Your task to perform on an android device: Open internet settings Image 0: 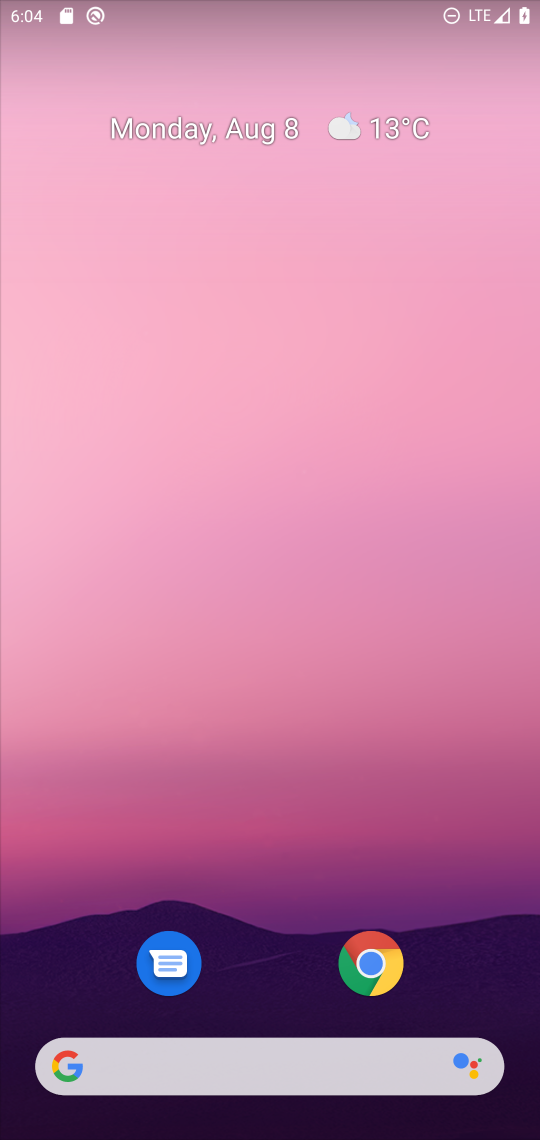
Step 0: press home button
Your task to perform on an android device: Open internet settings Image 1: 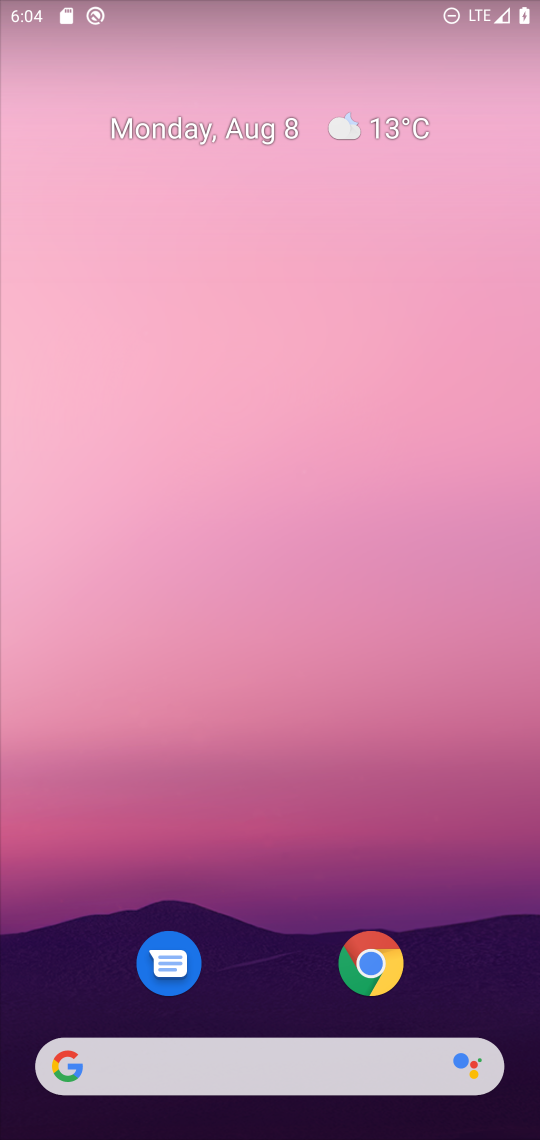
Step 1: drag from (323, 847) to (374, 257)
Your task to perform on an android device: Open internet settings Image 2: 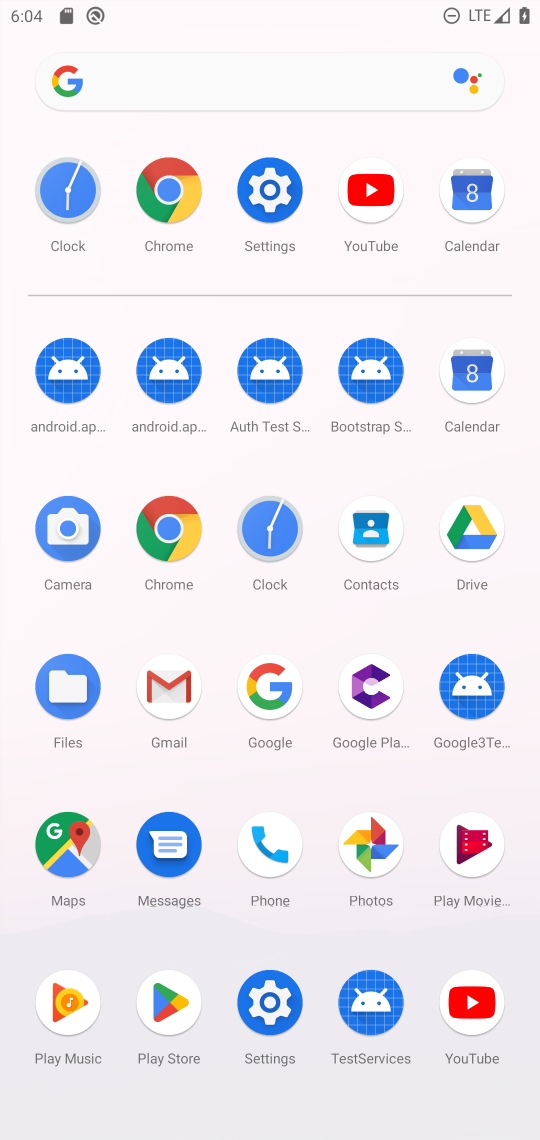
Step 2: click (274, 211)
Your task to perform on an android device: Open internet settings Image 3: 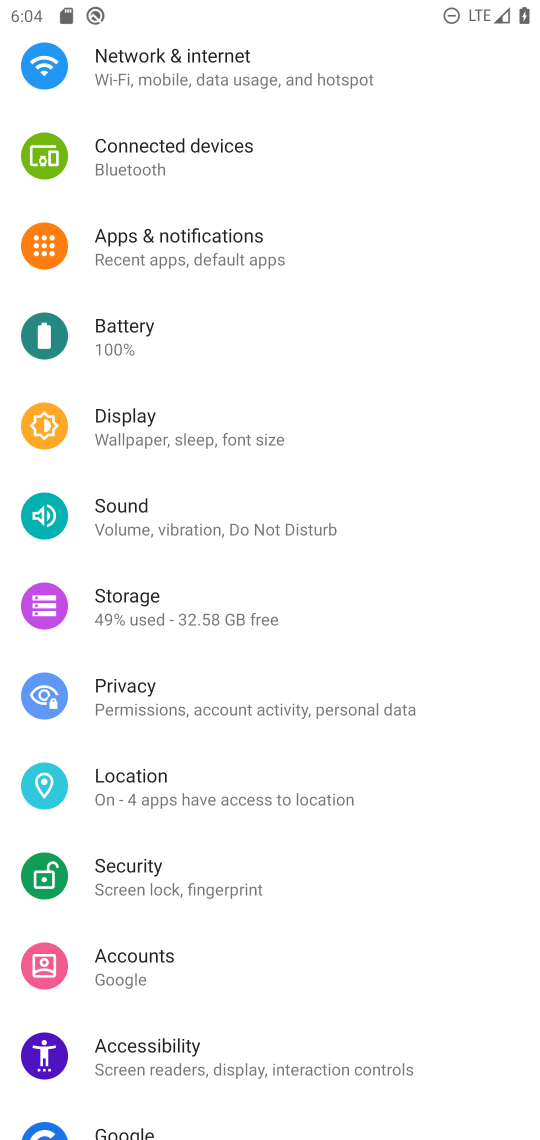
Step 3: click (168, 62)
Your task to perform on an android device: Open internet settings Image 4: 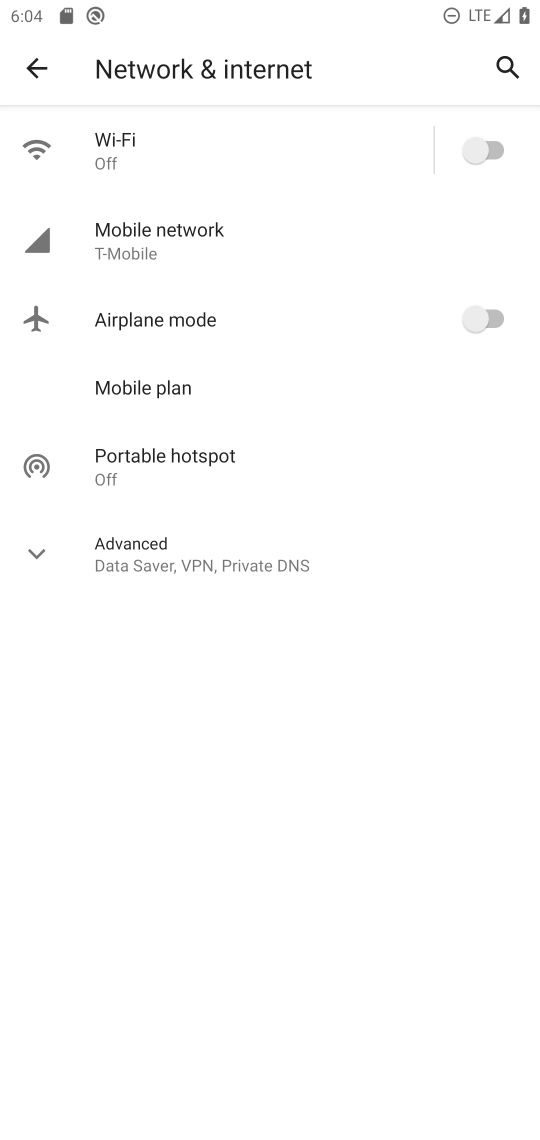
Step 4: click (205, 235)
Your task to perform on an android device: Open internet settings Image 5: 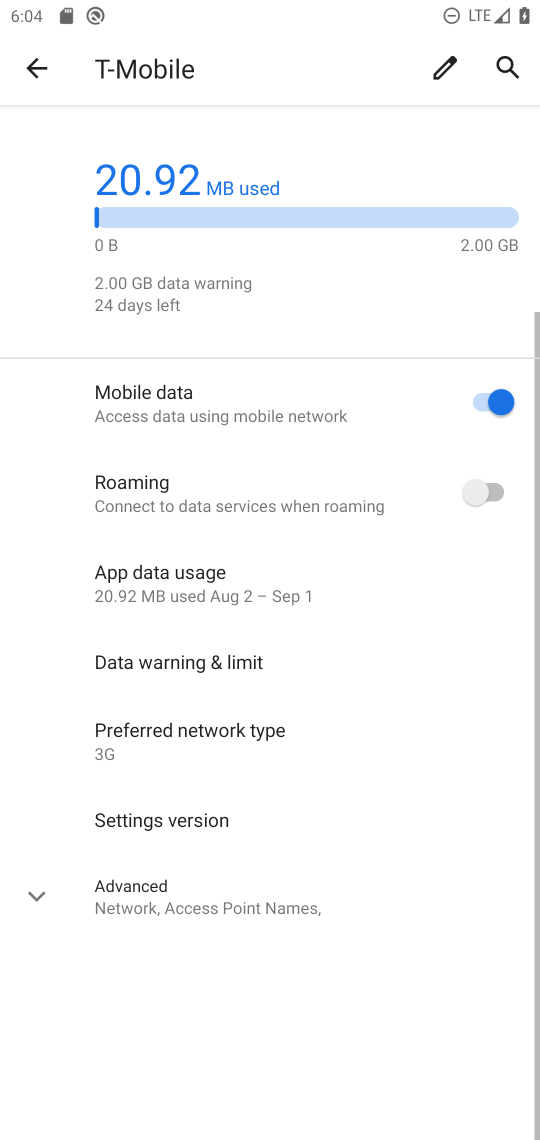
Step 5: task complete